Your task to perform on an android device: toggle data saver in the chrome app Image 0: 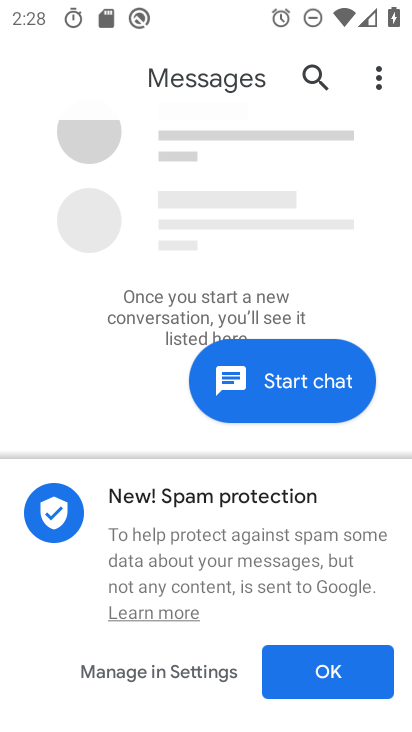
Step 0: press home button
Your task to perform on an android device: toggle data saver in the chrome app Image 1: 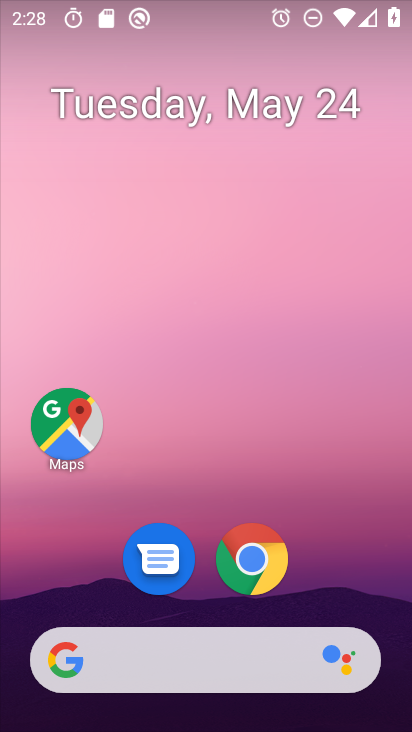
Step 1: drag from (401, 703) to (371, 201)
Your task to perform on an android device: toggle data saver in the chrome app Image 2: 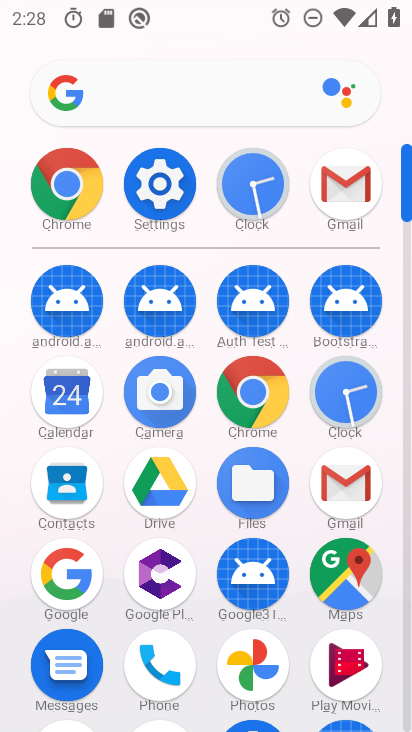
Step 2: click (250, 385)
Your task to perform on an android device: toggle data saver in the chrome app Image 3: 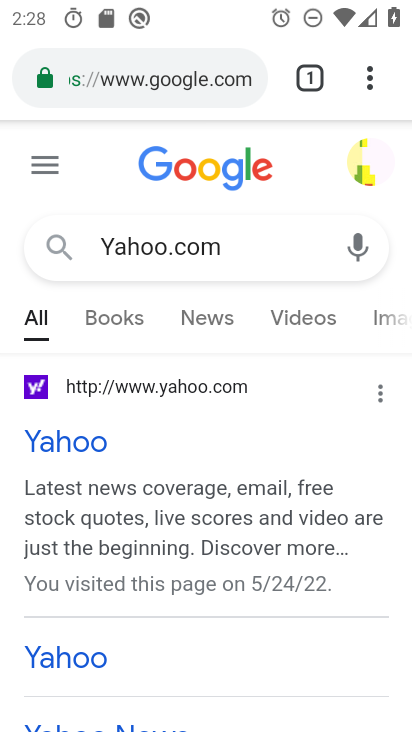
Step 3: click (366, 66)
Your task to perform on an android device: toggle data saver in the chrome app Image 4: 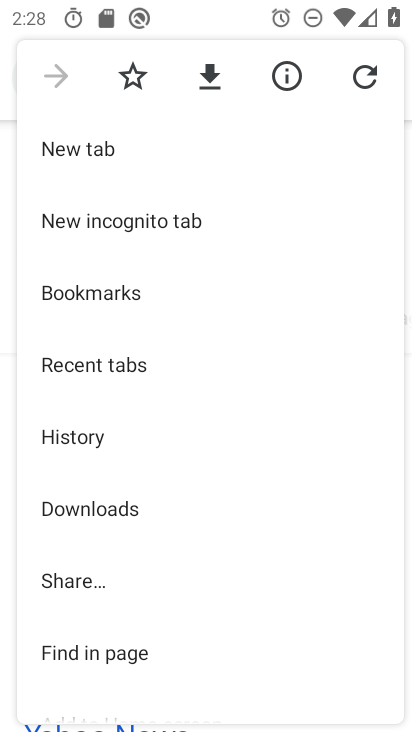
Step 4: drag from (190, 653) to (179, 269)
Your task to perform on an android device: toggle data saver in the chrome app Image 5: 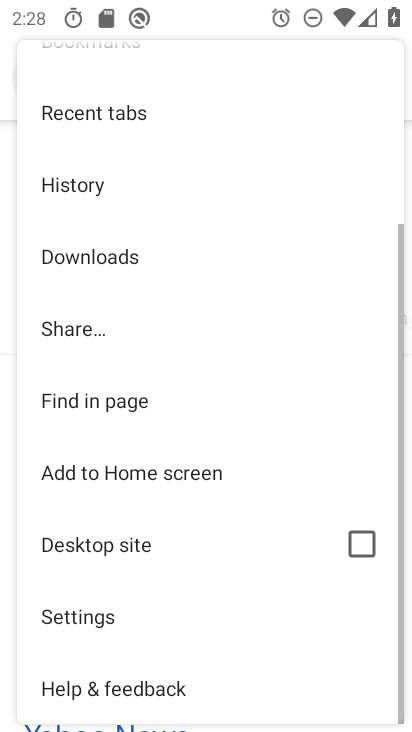
Step 5: click (77, 618)
Your task to perform on an android device: toggle data saver in the chrome app Image 6: 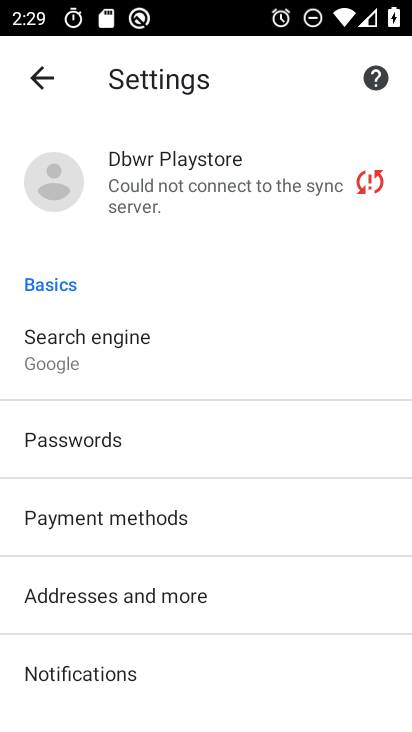
Step 6: drag from (286, 696) to (284, 282)
Your task to perform on an android device: toggle data saver in the chrome app Image 7: 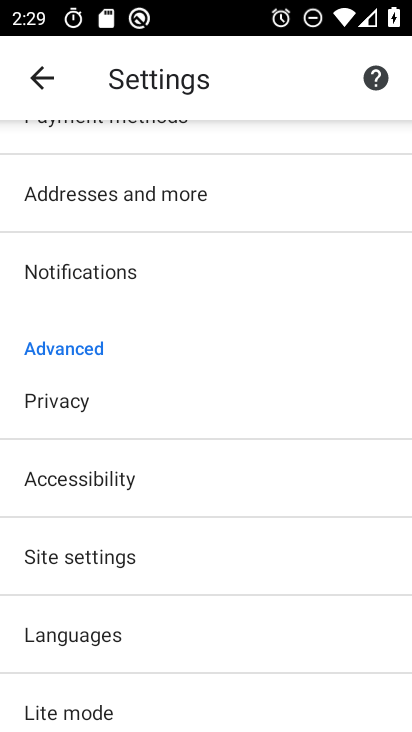
Step 7: click (111, 705)
Your task to perform on an android device: toggle data saver in the chrome app Image 8: 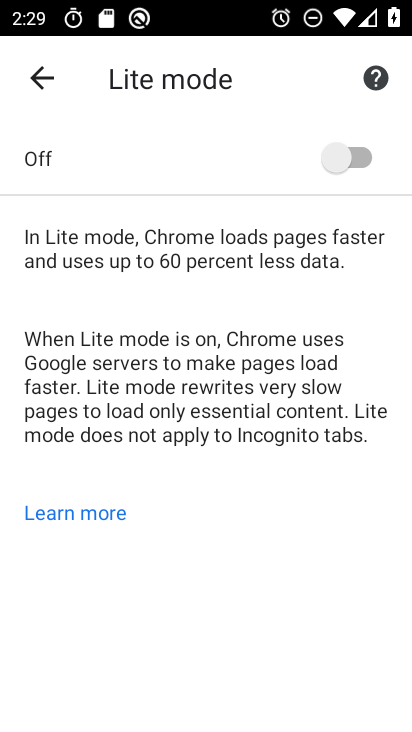
Step 8: click (362, 164)
Your task to perform on an android device: toggle data saver in the chrome app Image 9: 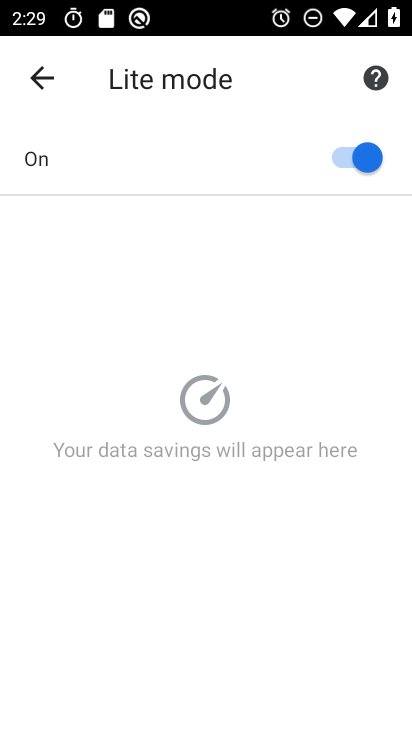
Step 9: task complete